Your task to perform on an android device: Clear the cart on newegg.com. Add "macbook pro" to the cart on newegg.com Image 0: 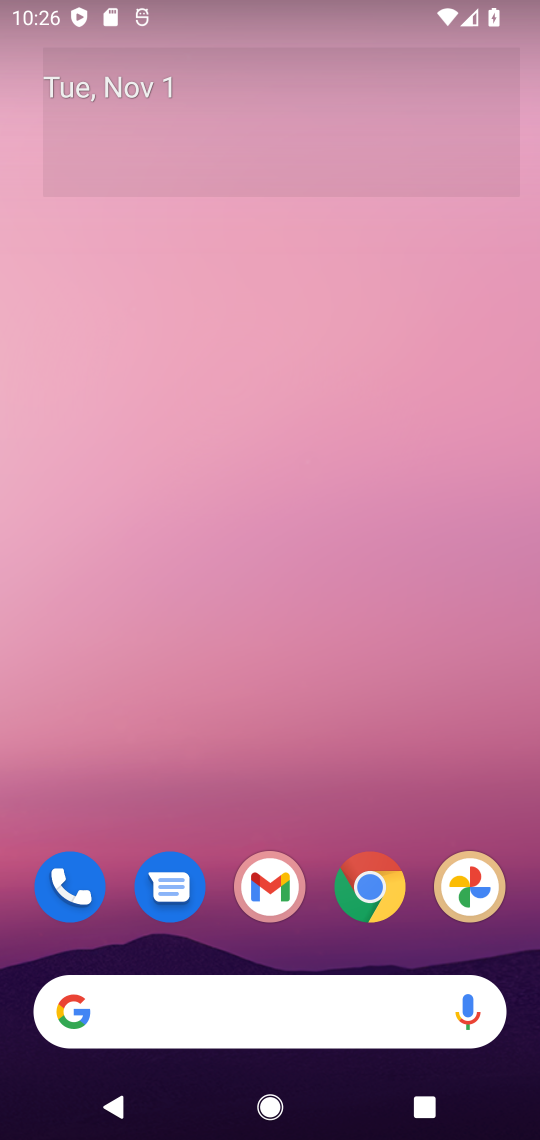
Step 0: click (389, 891)
Your task to perform on an android device: Clear the cart on newegg.com. Add "macbook pro" to the cart on newegg.com Image 1: 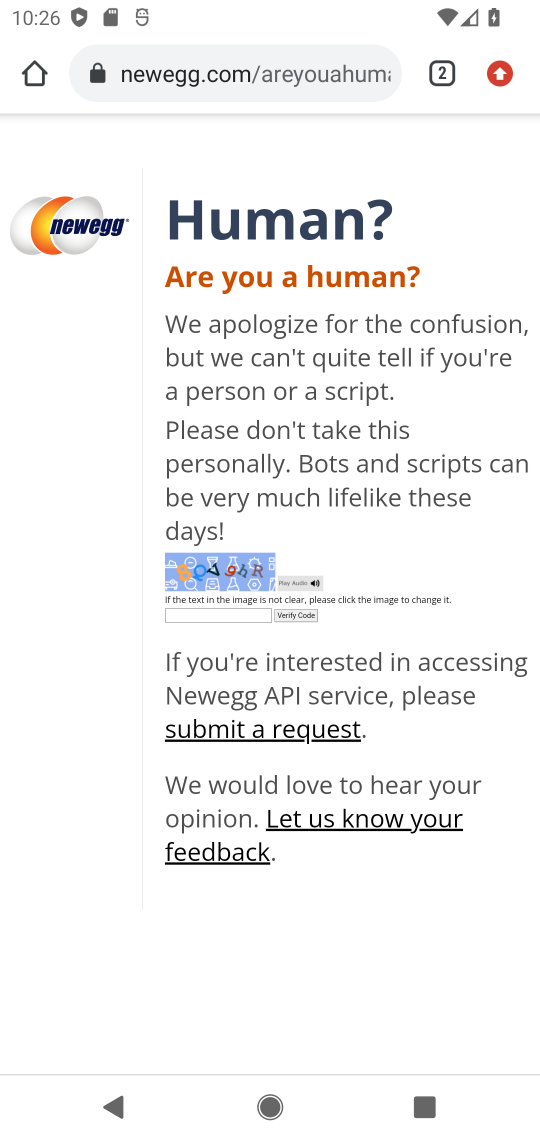
Step 1: click (306, 73)
Your task to perform on an android device: Clear the cart on newegg.com. Add "macbook pro" to the cart on newegg.com Image 2: 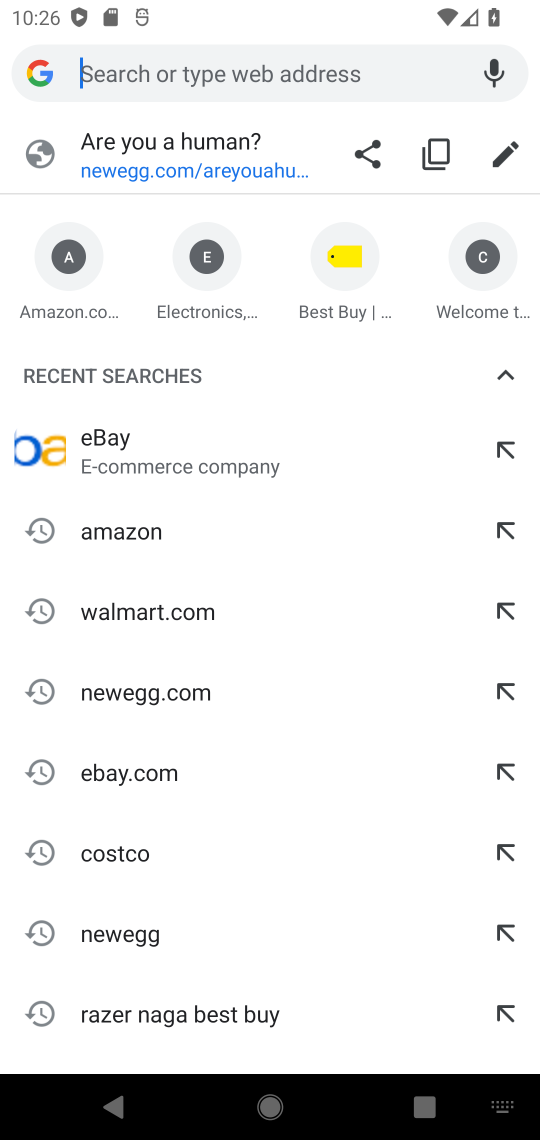
Step 2: type "newegg"
Your task to perform on an android device: Clear the cart on newegg.com. Add "macbook pro" to the cart on newegg.com Image 3: 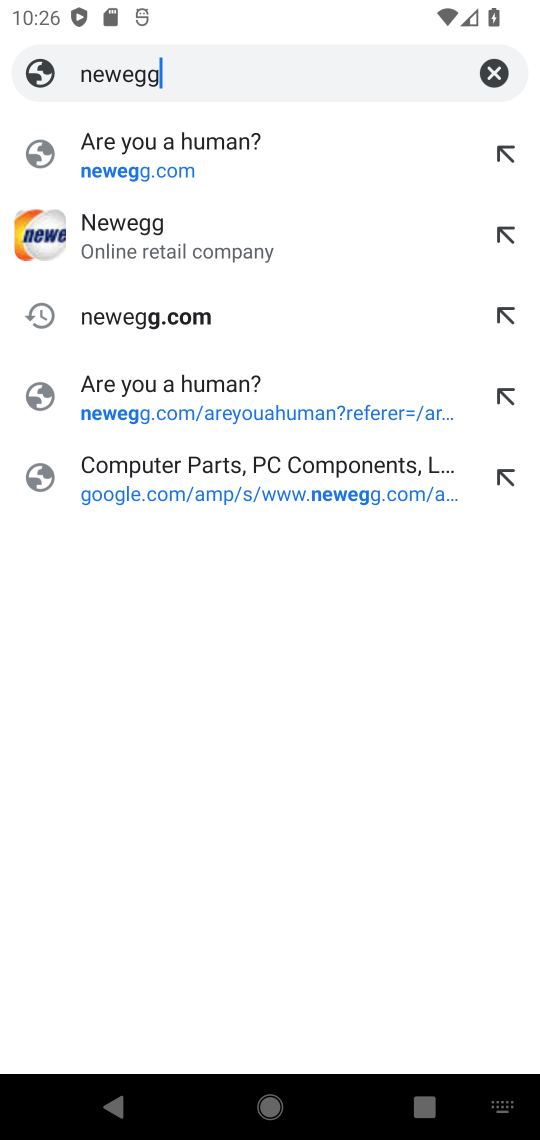
Step 3: press enter
Your task to perform on an android device: Clear the cart on newegg.com. Add "macbook pro" to the cart on newegg.com Image 4: 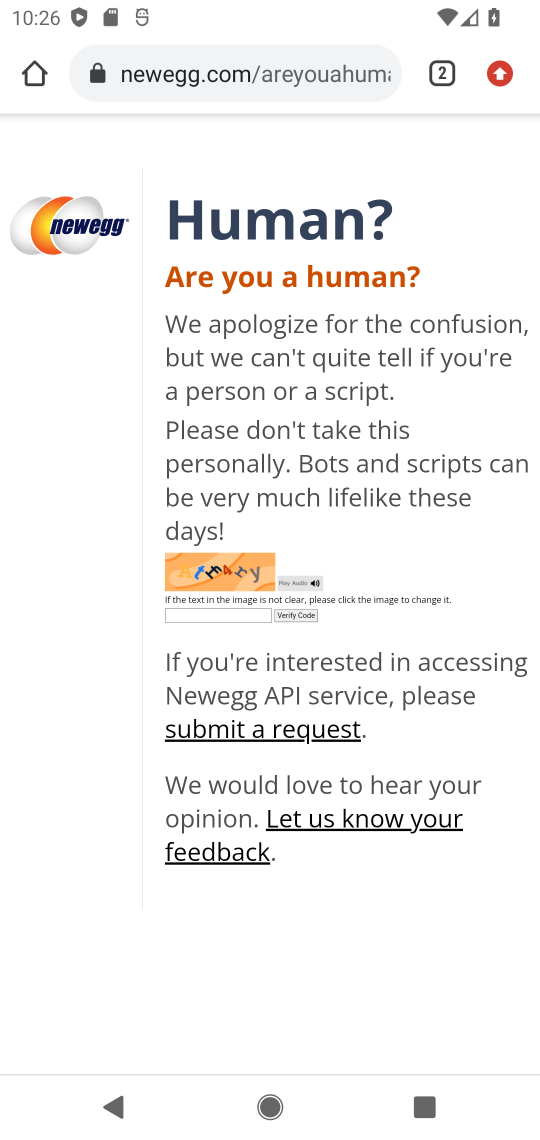
Step 4: task complete